Your task to perform on an android device: turn smart compose on in the gmail app Image 0: 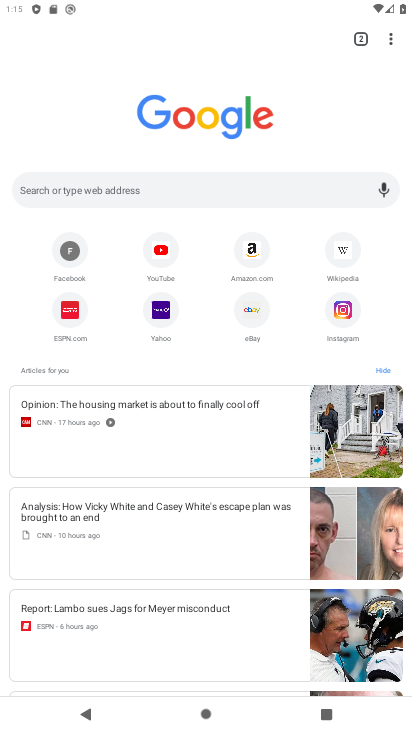
Step 0: click (137, 605)
Your task to perform on an android device: turn smart compose on in the gmail app Image 1: 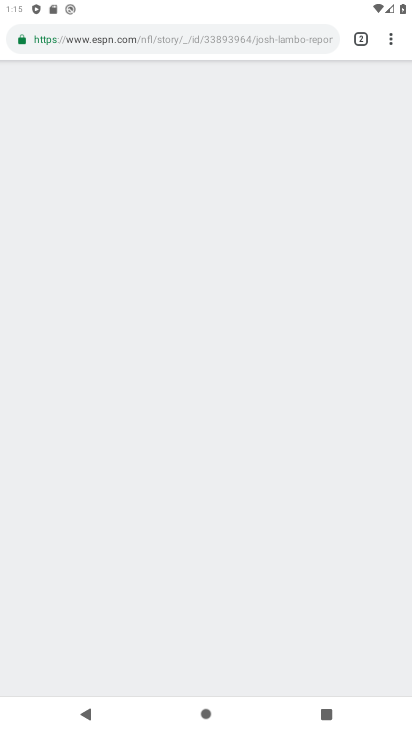
Step 1: press home button
Your task to perform on an android device: turn smart compose on in the gmail app Image 2: 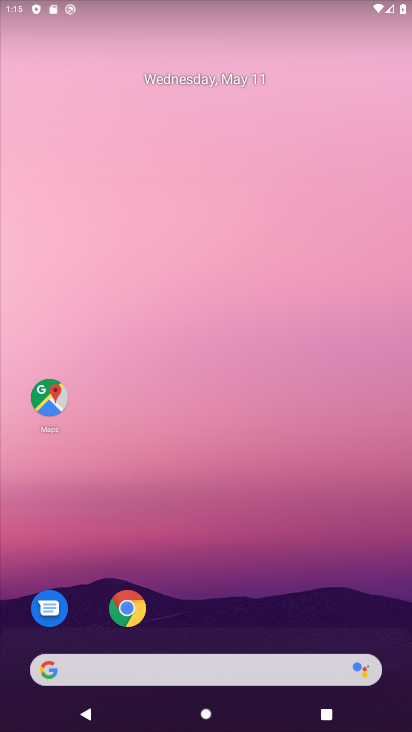
Step 2: drag from (310, 224) to (315, 47)
Your task to perform on an android device: turn smart compose on in the gmail app Image 3: 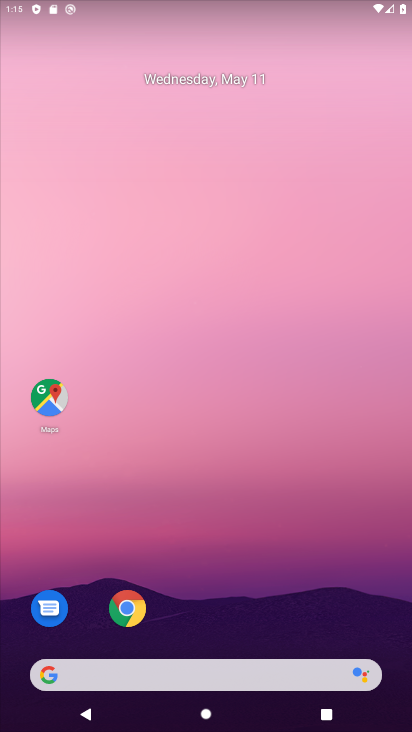
Step 3: drag from (303, 570) to (279, 87)
Your task to perform on an android device: turn smart compose on in the gmail app Image 4: 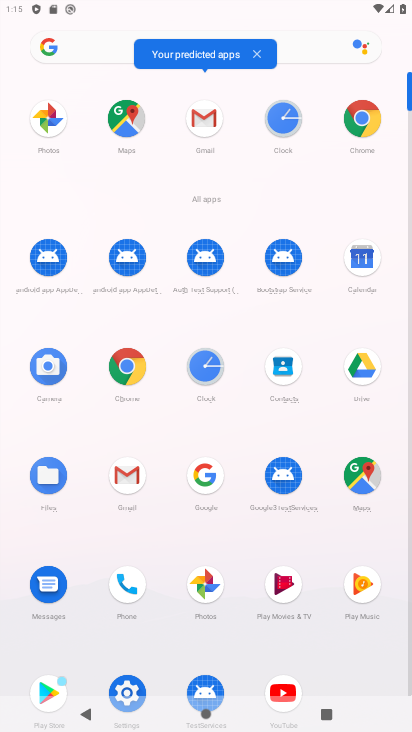
Step 4: click (202, 125)
Your task to perform on an android device: turn smart compose on in the gmail app Image 5: 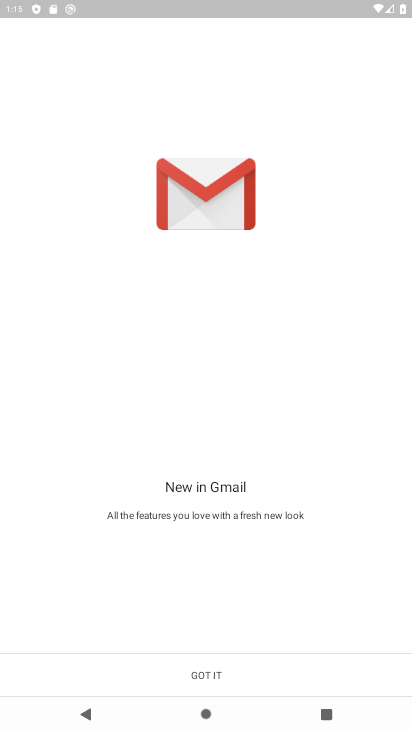
Step 5: click (193, 670)
Your task to perform on an android device: turn smart compose on in the gmail app Image 6: 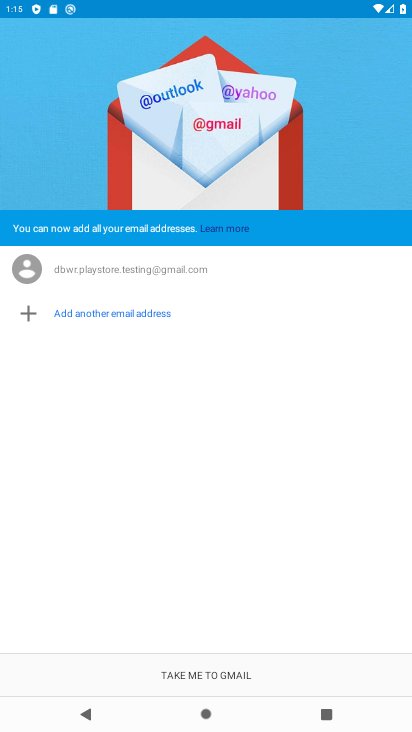
Step 6: click (206, 670)
Your task to perform on an android device: turn smart compose on in the gmail app Image 7: 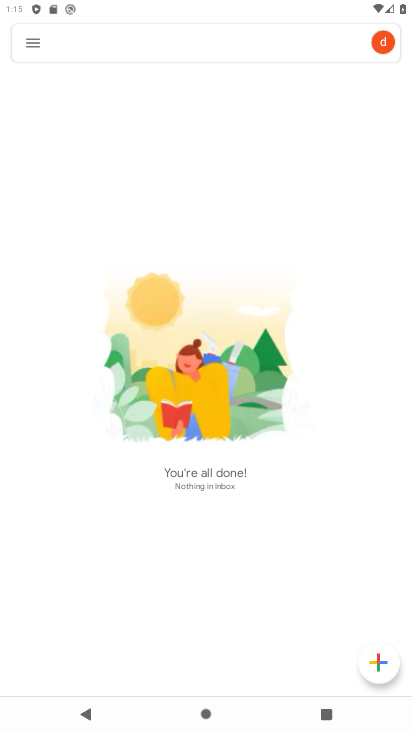
Step 7: click (36, 41)
Your task to perform on an android device: turn smart compose on in the gmail app Image 8: 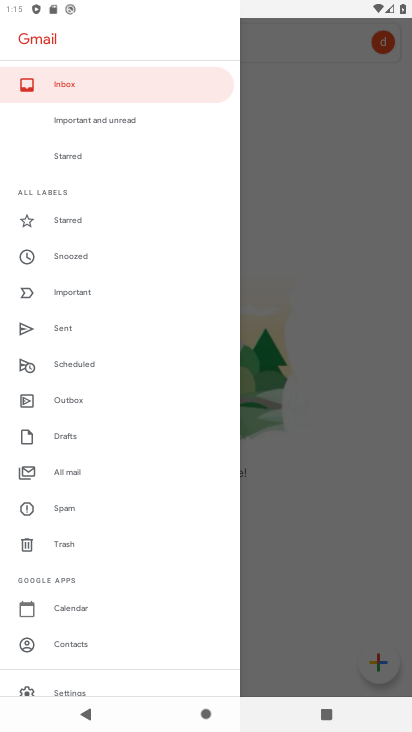
Step 8: click (81, 687)
Your task to perform on an android device: turn smart compose on in the gmail app Image 9: 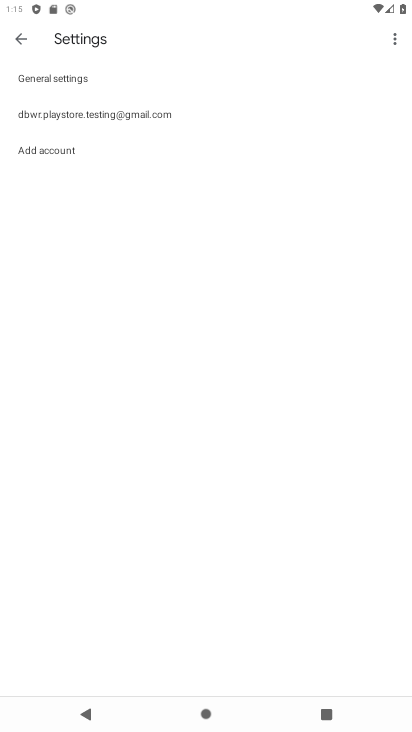
Step 9: click (154, 114)
Your task to perform on an android device: turn smart compose on in the gmail app Image 10: 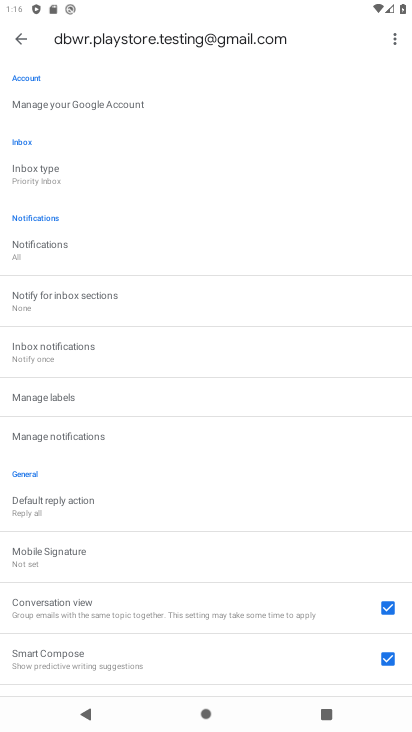
Step 10: task complete